Your task to perform on an android device: open the mobile data screen to see how much data has been used Image 0: 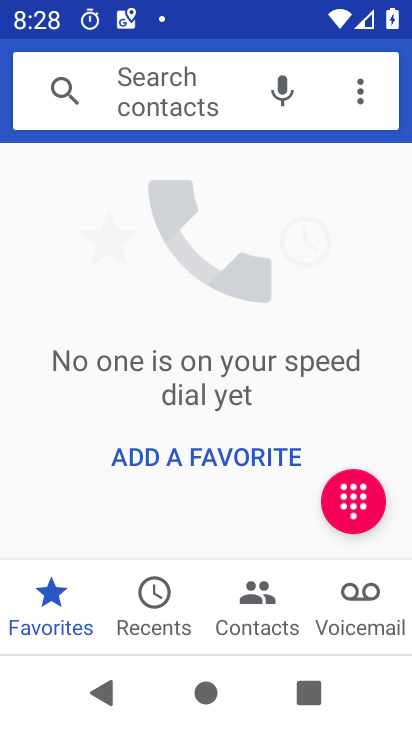
Step 0: press home button
Your task to perform on an android device: open the mobile data screen to see how much data has been used Image 1: 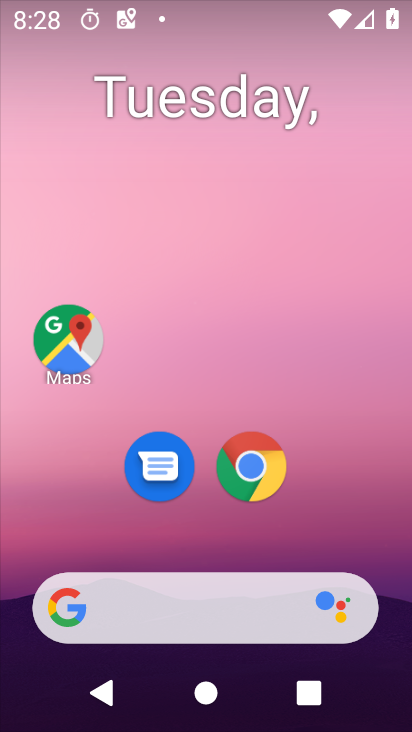
Step 1: drag from (214, 518) to (213, 141)
Your task to perform on an android device: open the mobile data screen to see how much data has been used Image 2: 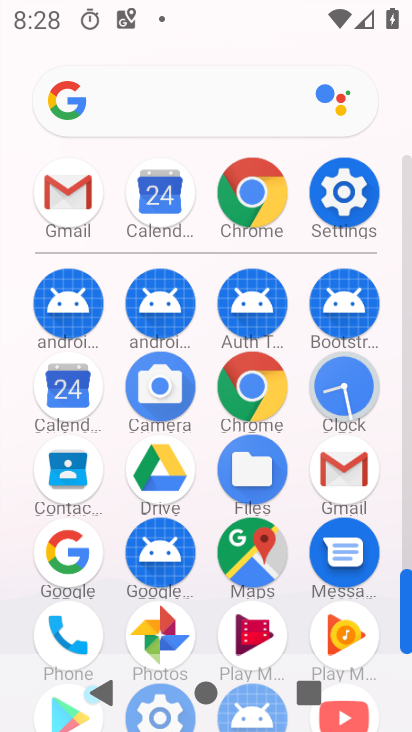
Step 2: click (353, 193)
Your task to perform on an android device: open the mobile data screen to see how much data has been used Image 3: 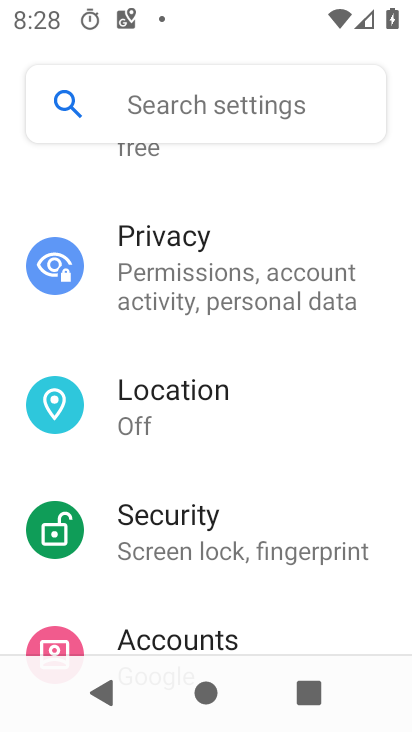
Step 3: drag from (217, 290) to (208, 604)
Your task to perform on an android device: open the mobile data screen to see how much data has been used Image 4: 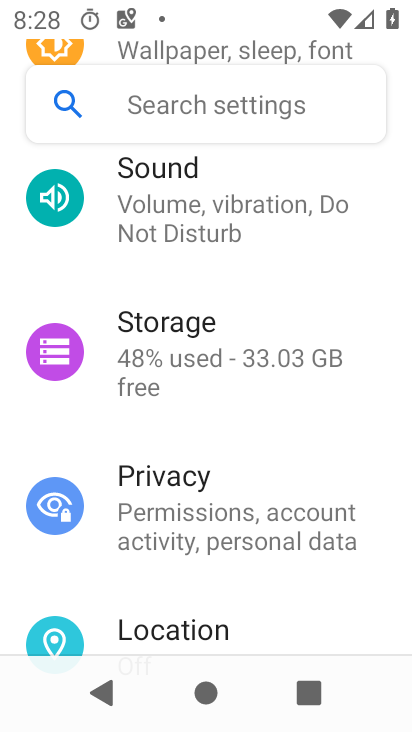
Step 4: drag from (210, 256) to (244, 711)
Your task to perform on an android device: open the mobile data screen to see how much data has been used Image 5: 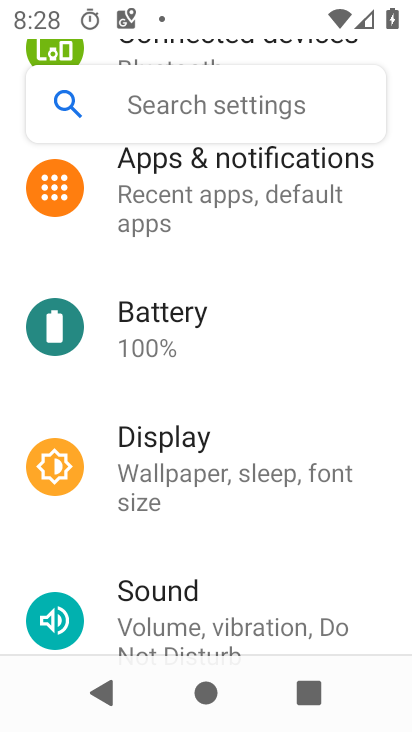
Step 5: drag from (186, 278) to (192, 668)
Your task to perform on an android device: open the mobile data screen to see how much data has been used Image 6: 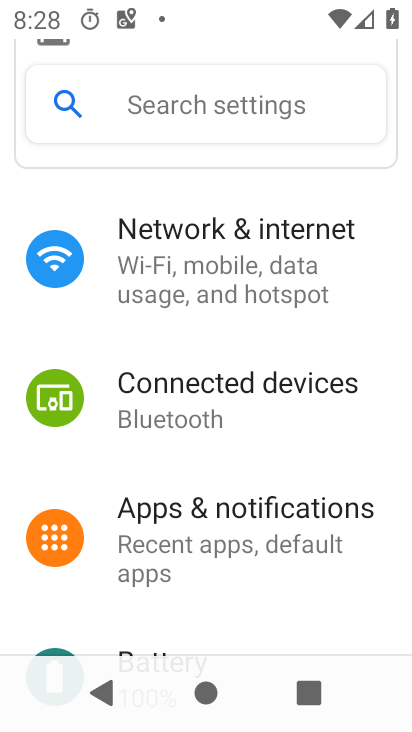
Step 6: click (187, 292)
Your task to perform on an android device: open the mobile data screen to see how much data has been used Image 7: 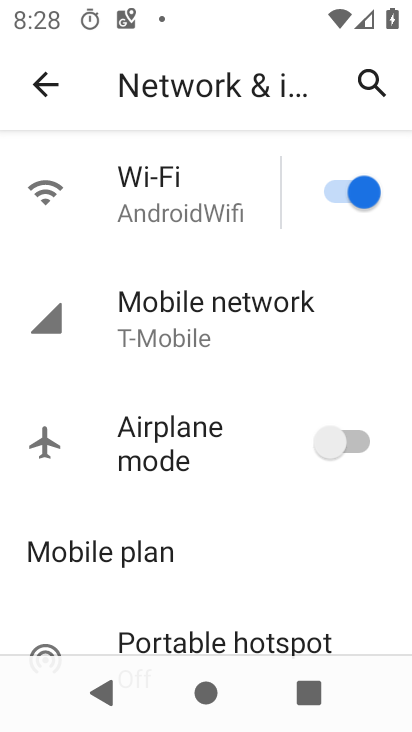
Step 7: click (177, 331)
Your task to perform on an android device: open the mobile data screen to see how much data has been used Image 8: 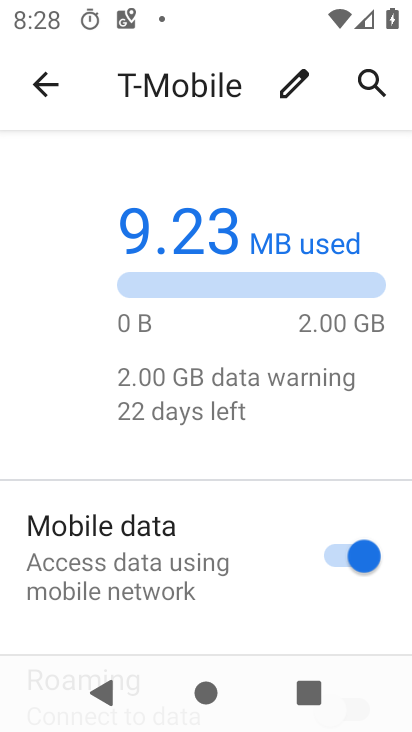
Step 8: drag from (209, 520) to (236, 233)
Your task to perform on an android device: open the mobile data screen to see how much data has been used Image 9: 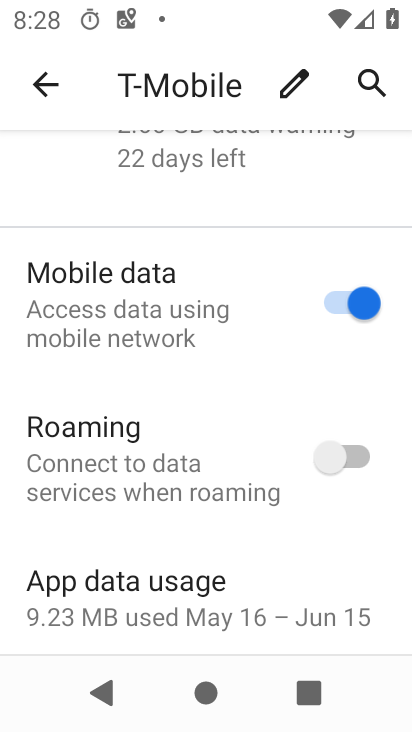
Step 9: click (166, 598)
Your task to perform on an android device: open the mobile data screen to see how much data has been used Image 10: 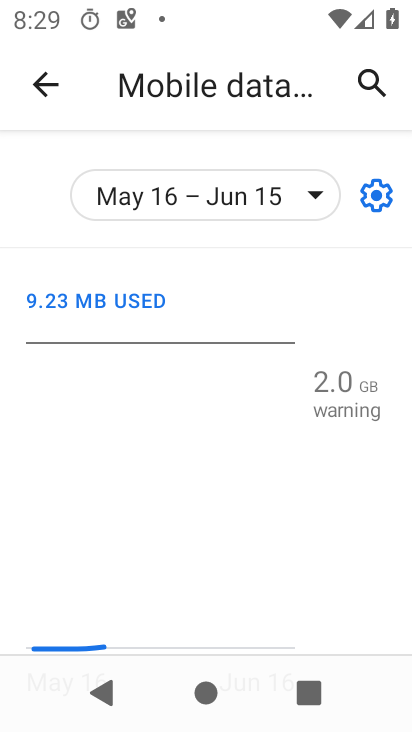
Step 10: task complete